Your task to perform on an android device: read, delete, or share a saved page in the chrome app Image 0: 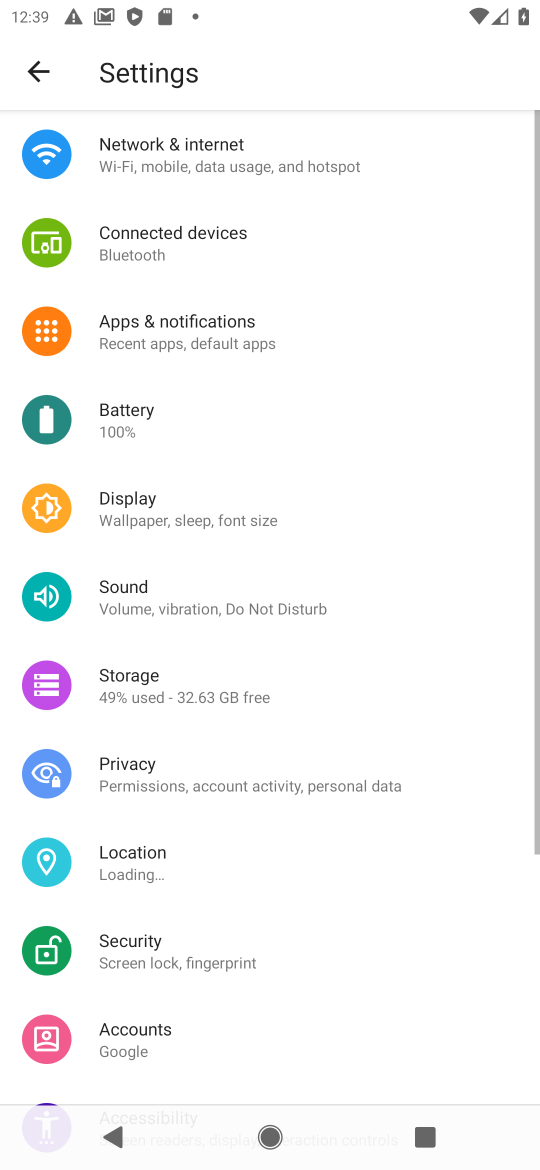
Step 0: press home button
Your task to perform on an android device: read, delete, or share a saved page in the chrome app Image 1: 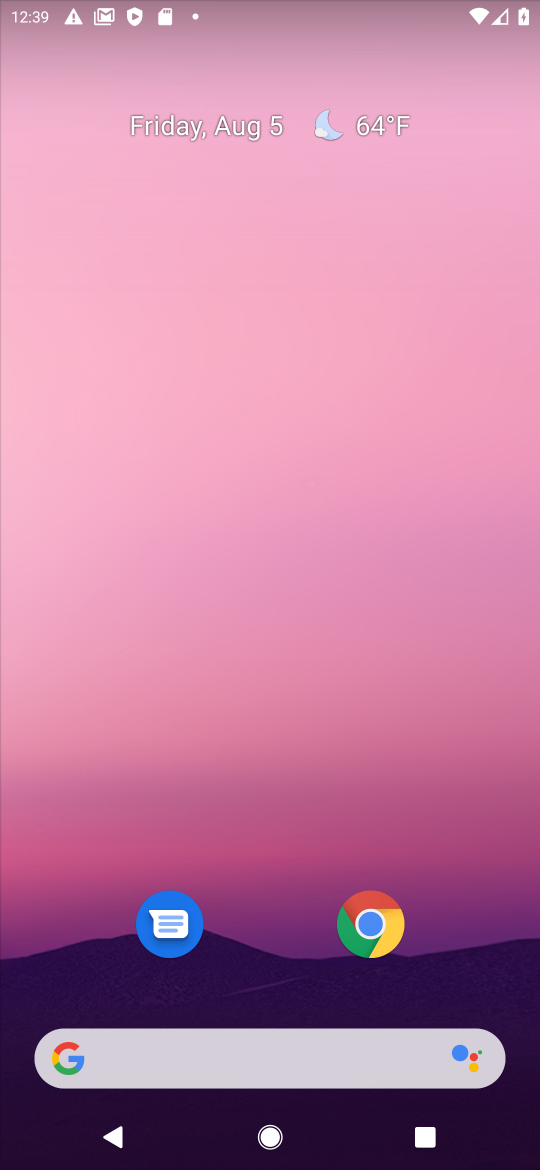
Step 1: drag from (256, 824) to (279, 127)
Your task to perform on an android device: read, delete, or share a saved page in the chrome app Image 2: 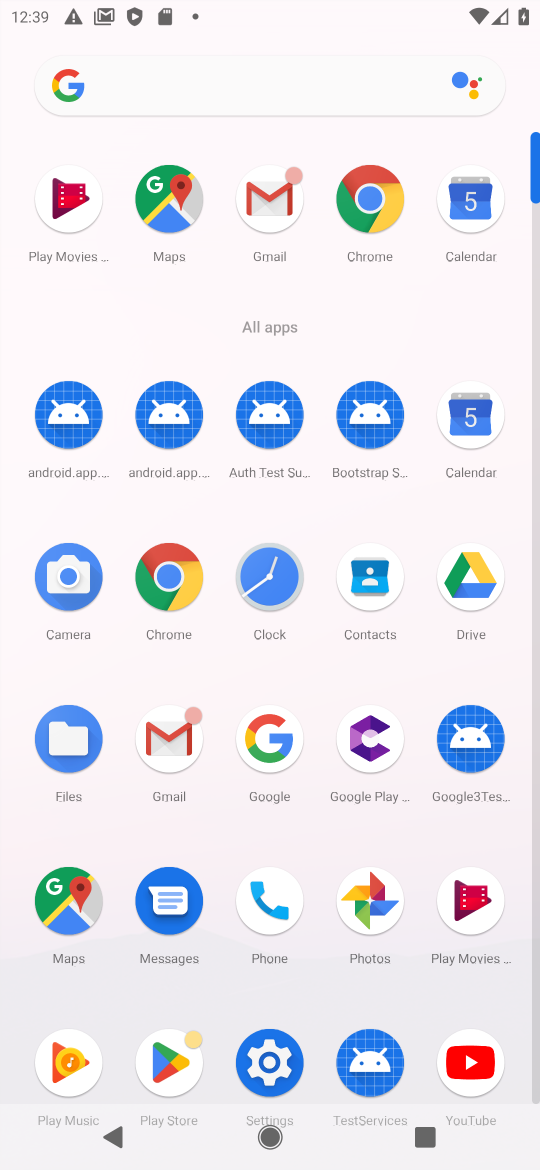
Step 2: click (367, 197)
Your task to perform on an android device: read, delete, or share a saved page in the chrome app Image 3: 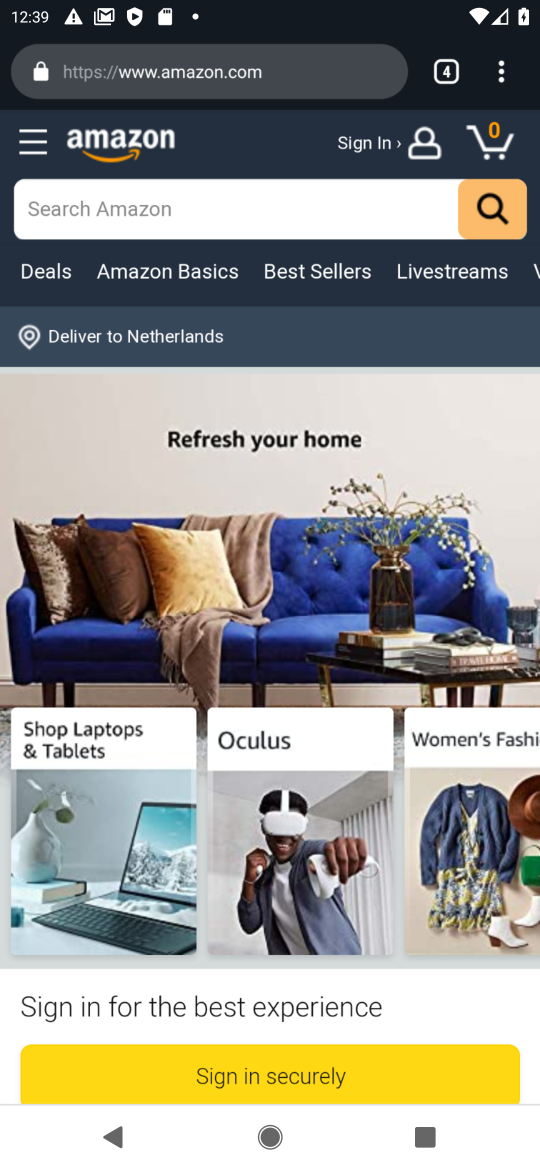
Step 3: drag from (502, 62) to (222, 478)
Your task to perform on an android device: read, delete, or share a saved page in the chrome app Image 4: 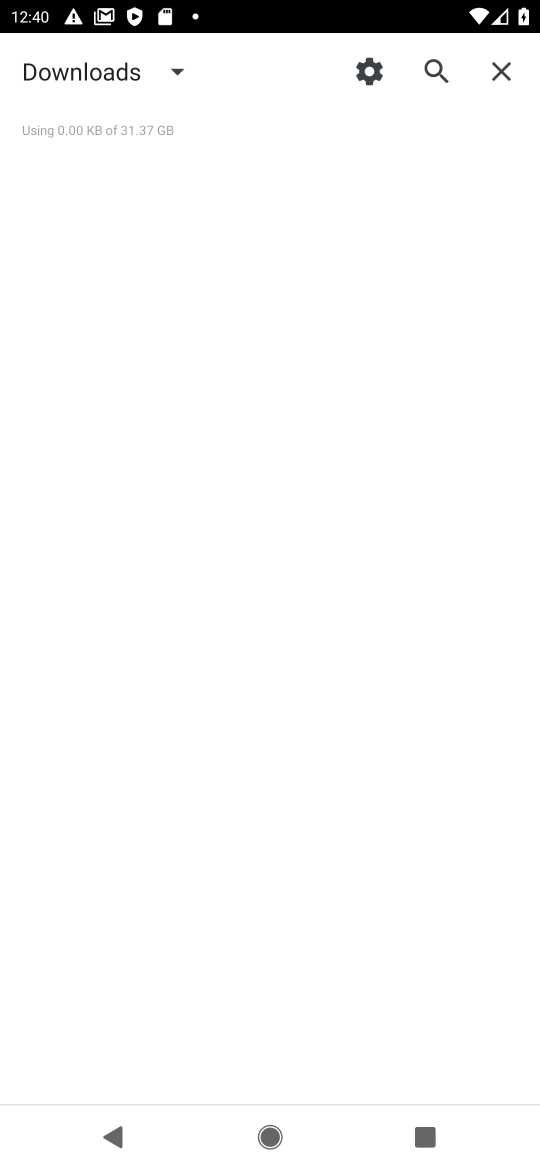
Step 4: click (180, 70)
Your task to perform on an android device: read, delete, or share a saved page in the chrome app Image 5: 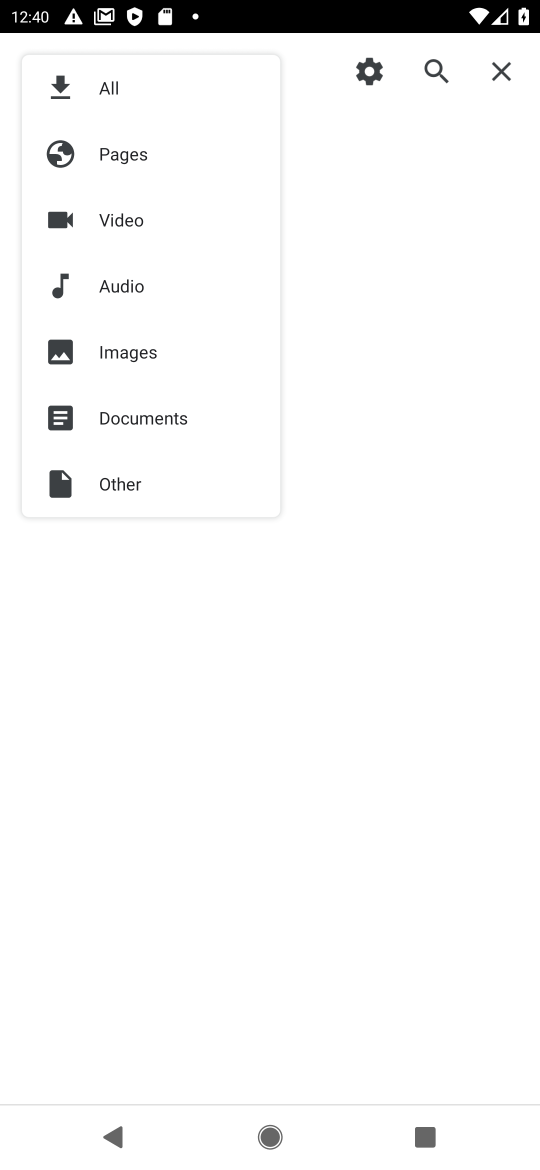
Step 5: click (113, 148)
Your task to perform on an android device: read, delete, or share a saved page in the chrome app Image 6: 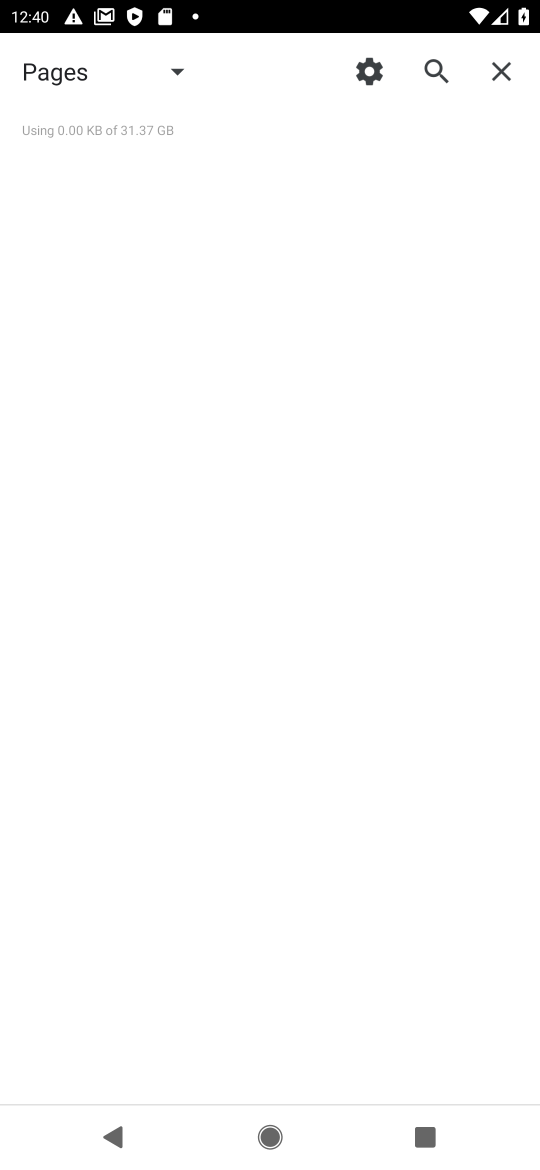
Step 6: task complete